Your task to perform on an android device: Search for seafood restaurants on Google Maps Image 0: 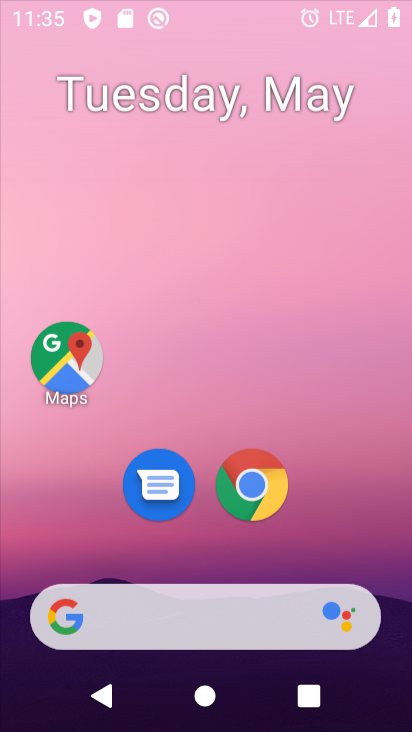
Step 0: drag from (279, 10) to (212, 0)
Your task to perform on an android device: Search for seafood restaurants on Google Maps Image 1: 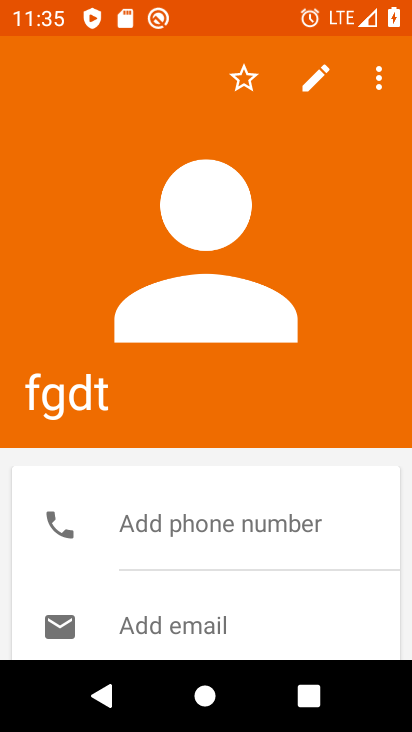
Step 1: press home button
Your task to perform on an android device: Search for seafood restaurants on Google Maps Image 2: 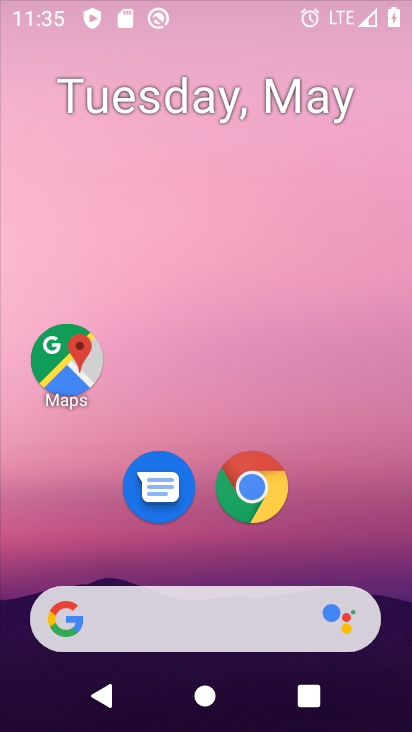
Step 2: drag from (193, 560) to (199, 76)
Your task to perform on an android device: Search for seafood restaurants on Google Maps Image 3: 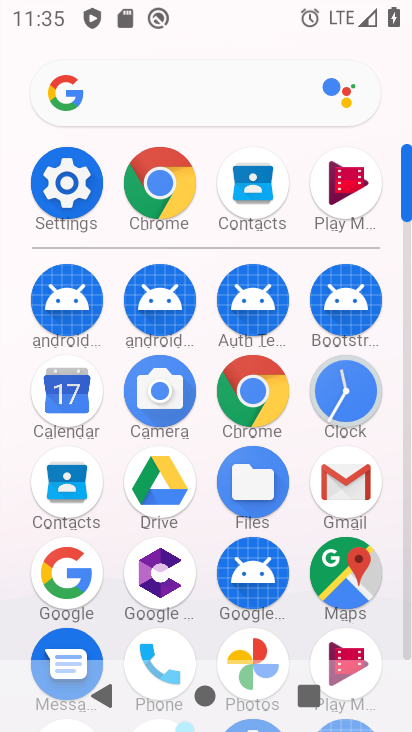
Step 3: click (352, 575)
Your task to perform on an android device: Search for seafood restaurants on Google Maps Image 4: 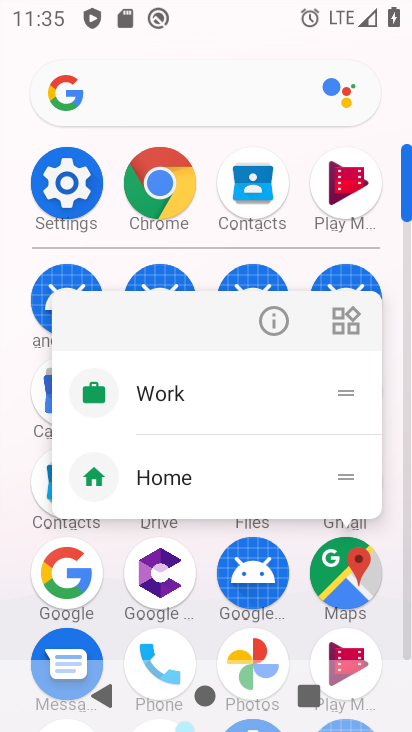
Step 4: click (277, 319)
Your task to perform on an android device: Search for seafood restaurants on Google Maps Image 5: 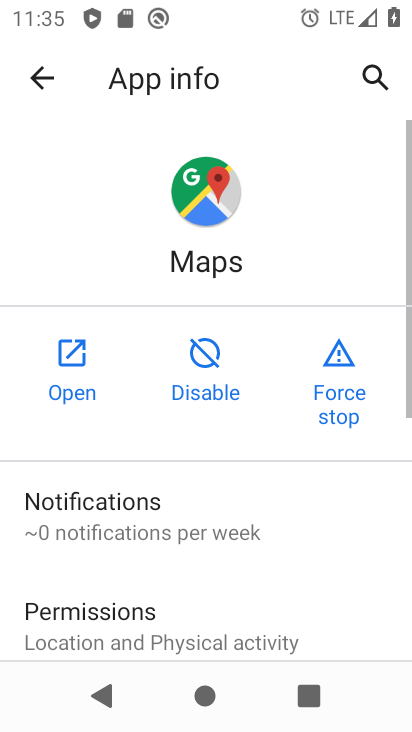
Step 5: click (77, 386)
Your task to perform on an android device: Search for seafood restaurants on Google Maps Image 6: 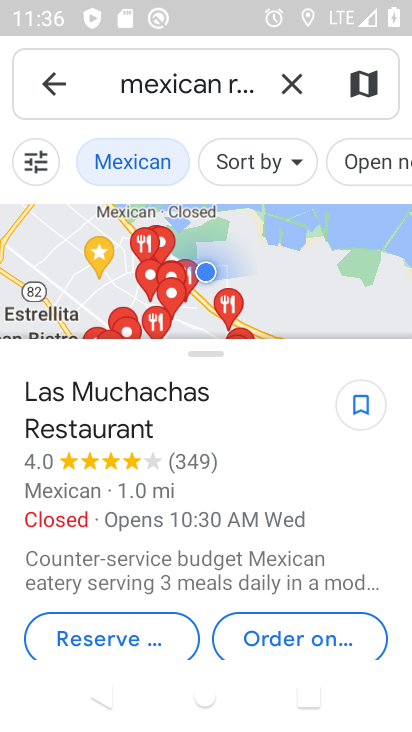
Step 6: click (289, 94)
Your task to perform on an android device: Search for seafood restaurants on Google Maps Image 7: 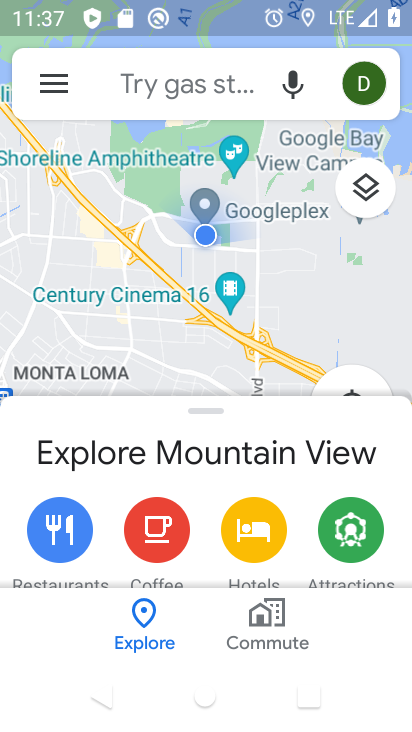
Step 7: drag from (187, 655) to (206, 286)
Your task to perform on an android device: Search for seafood restaurants on Google Maps Image 8: 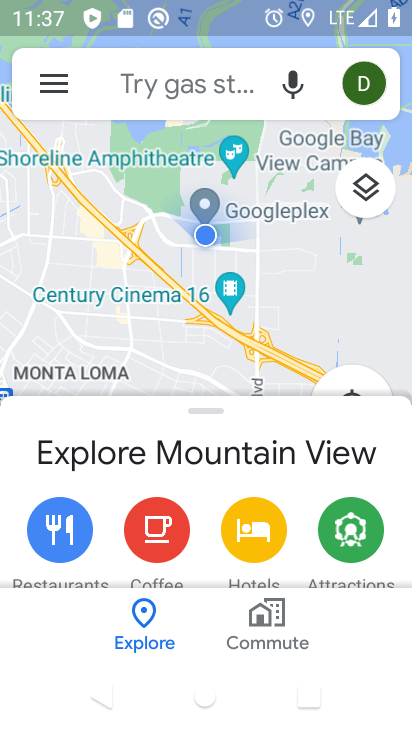
Step 8: click (186, 82)
Your task to perform on an android device: Search for seafood restaurants on Google Maps Image 9: 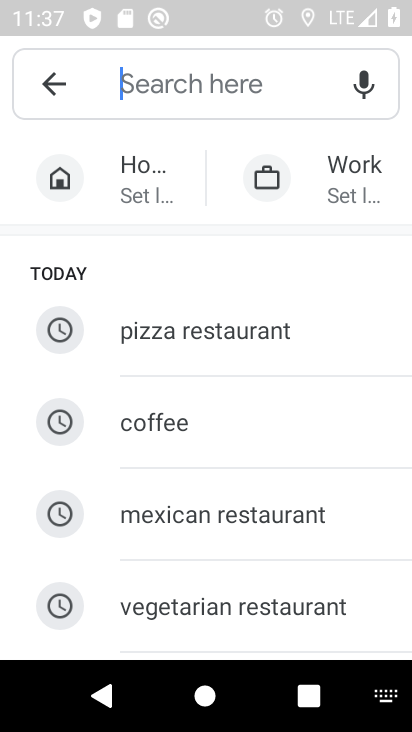
Step 9: drag from (236, 543) to (288, 158)
Your task to perform on an android device: Search for seafood restaurants on Google Maps Image 10: 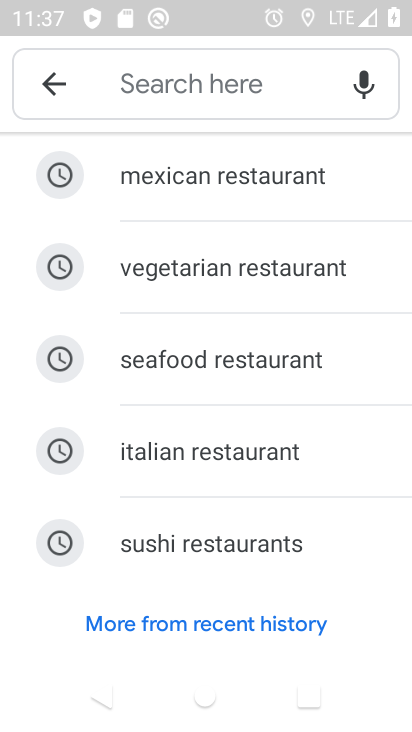
Step 10: click (195, 372)
Your task to perform on an android device: Search for seafood restaurants on Google Maps Image 11: 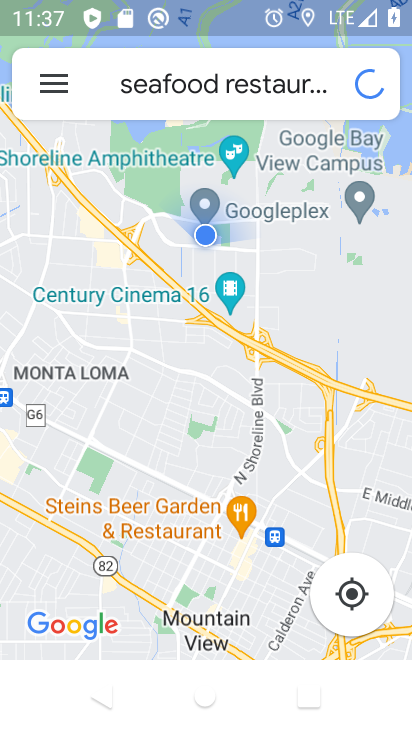
Step 11: task complete